Your task to perform on an android device: Go to location settings Image 0: 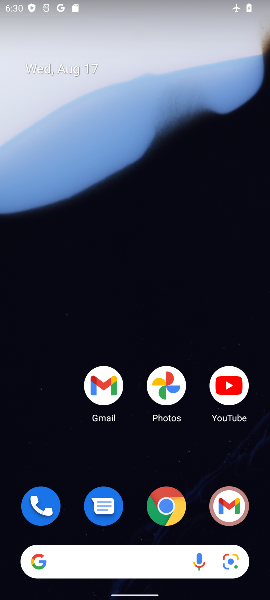
Step 0: drag from (133, 468) to (159, 64)
Your task to perform on an android device: Go to location settings Image 1: 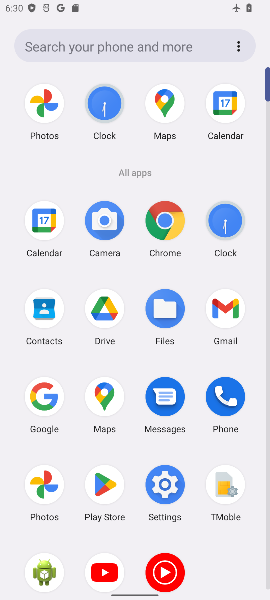
Step 1: click (164, 482)
Your task to perform on an android device: Go to location settings Image 2: 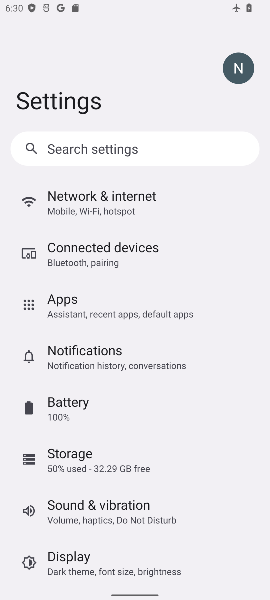
Step 2: drag from (181, 515) to (132, 157)
Your task to perform on an android device: Go to location settings Image 3: 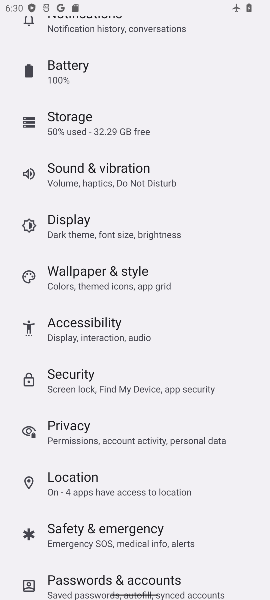
Step 3: click (99, 488)
Your task to perform on an android device: Go to location settings Image 4: 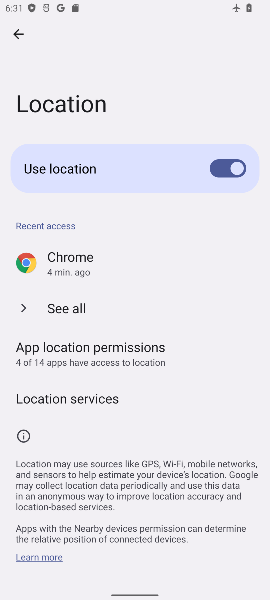
Step 4: task complete